Your task to perform on an android device: toggle priority inbox in the gmail app Image 0: 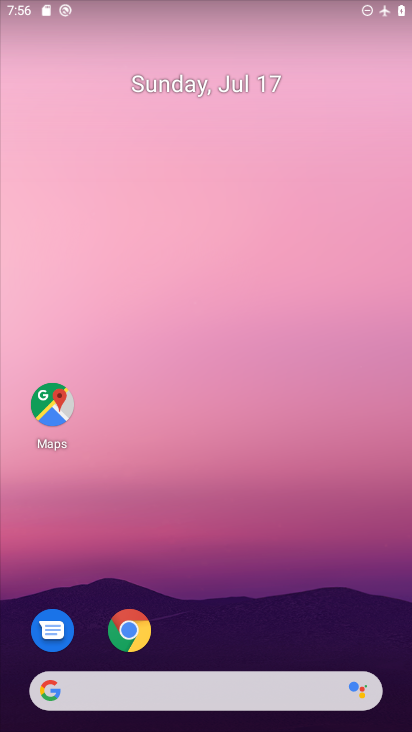
Step 0: drag from (355, 617) to (223, 116)
Your task to perform on an android device: toggle priority inbox in the gmail app Image 1: 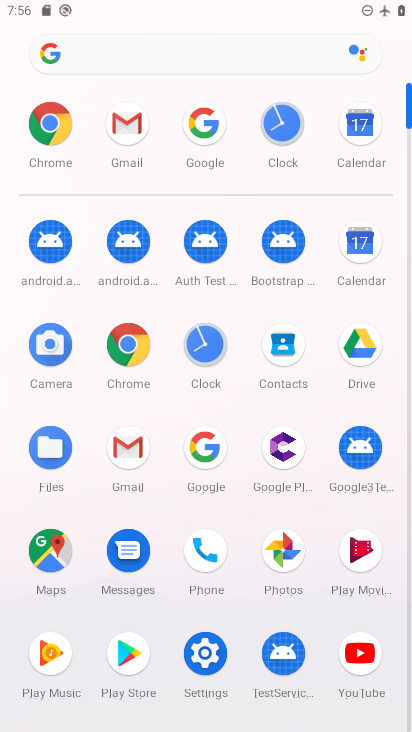
Step 1: click (137, 455)
Your task to perform on an android device: toggle priority inbox in the gmail app Image 2: 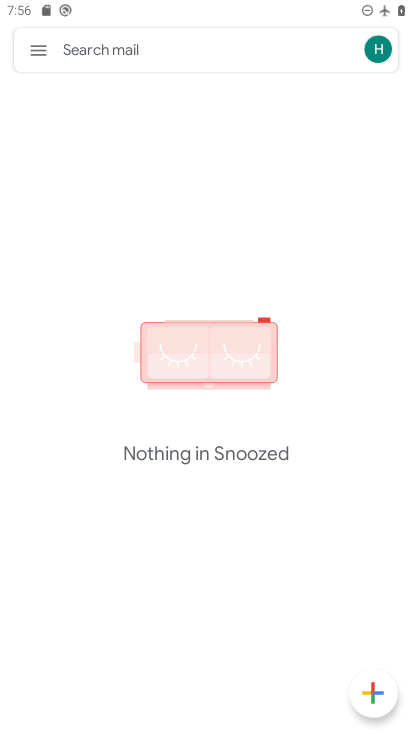
Step 2: click (35, 54)
Your task to perform on an android device: toggle priority inbox in the gmail app Image 3: 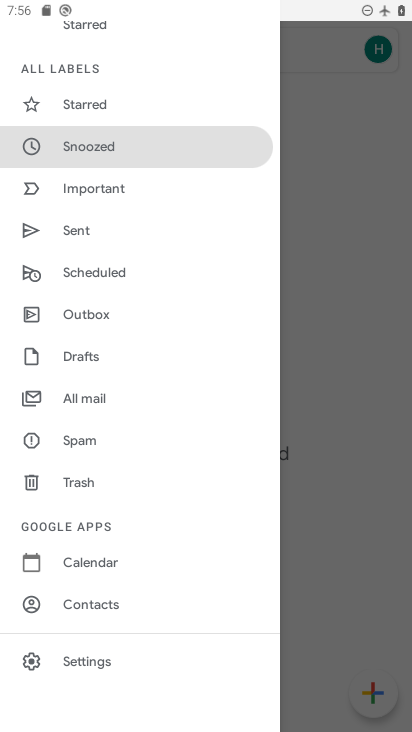
Step 3: click (100, 659)
Your task to perform on an android device: toggle priority inbox in the gmail app Image 4: 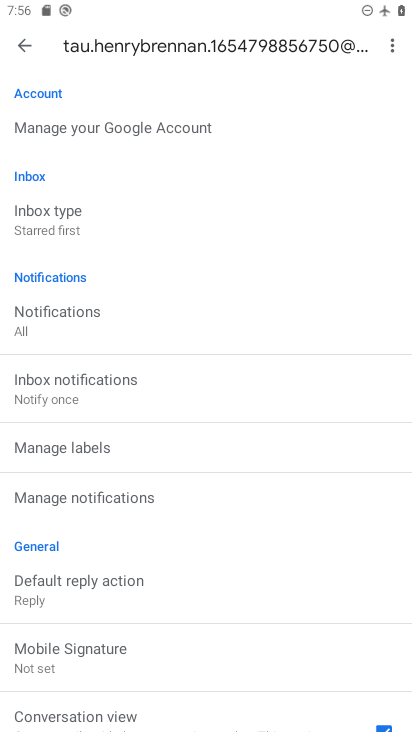
Step 4: click (42, 219)
Your task to perform on an android device: toggle priority inbox in the gmail app Image 5: 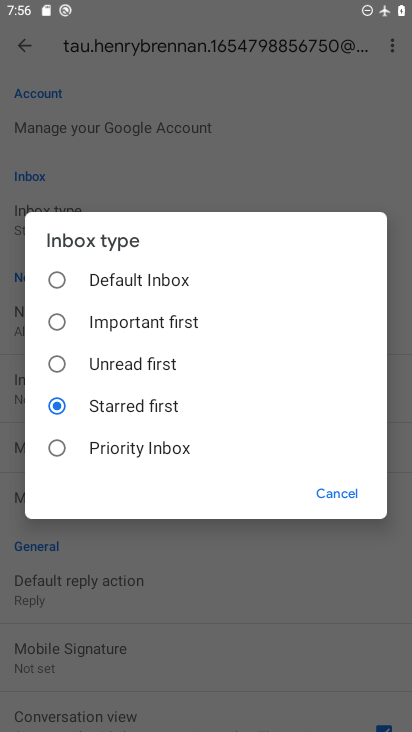
Step 5: click (111, 365)
Your task to perform on an android device: toggle priority inbox in the gmail app Image 6: 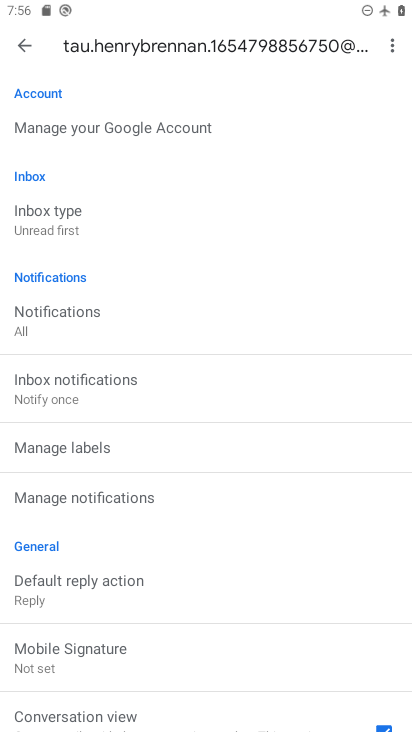
Step 6: task complete